Your task to perform on an android device: toggle wifi Image 0: 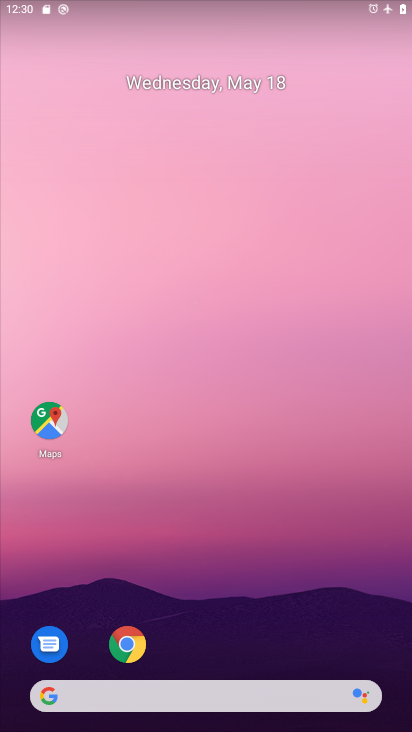
Step 0: drag from (210, 628) to (219, 89)
Your task to perform on an android device: toggle wifi Image 1: 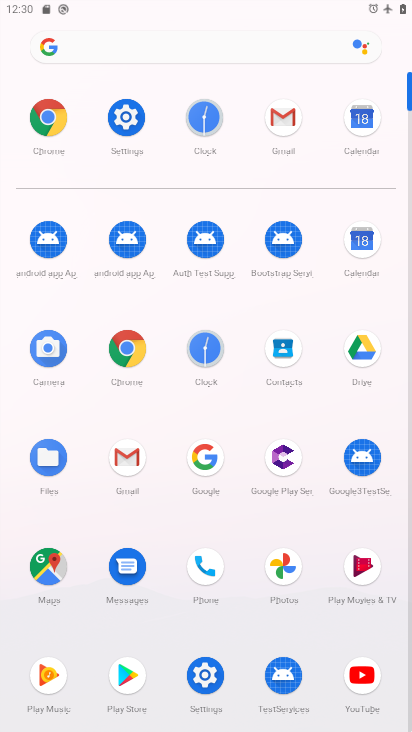
Step 1: drag from (206, 0) to (210, 609)
Your task to perform on an android device: toggle wifi Image 2: 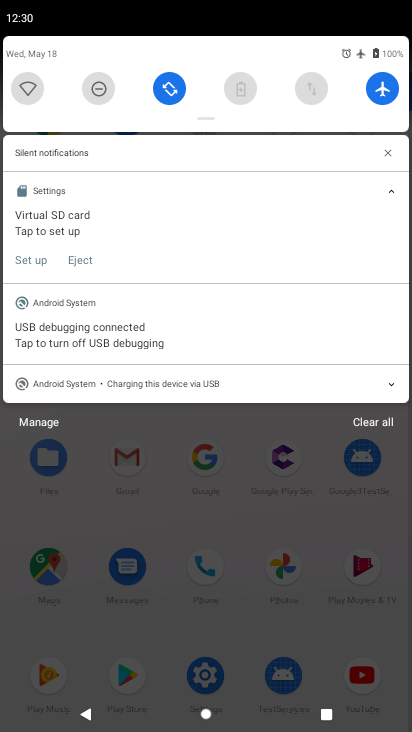
Step 2: click (28, 87)
Your task to perform on an android device: toggle wifi Image 3: 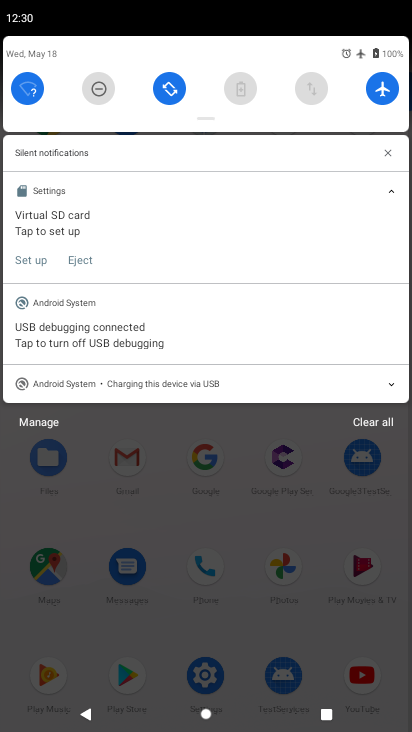
Step 3: task complete